Your task to perform on an android device: turn pop-ups on in chrome Image 0: 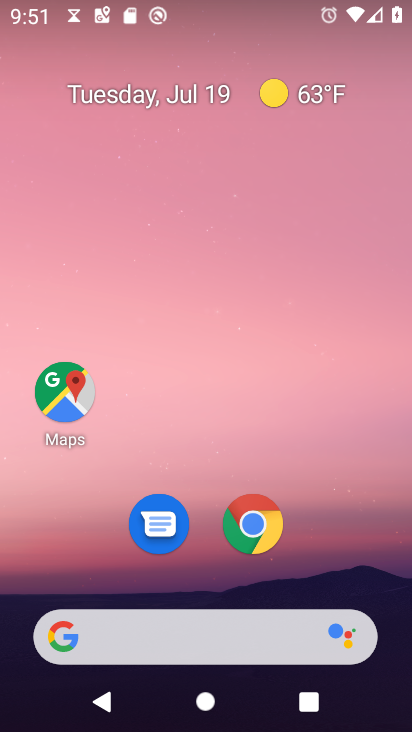
Step 0: click (253, 531)
Your task to perform on an android device: turn pop-ups on in chrome Image 1: 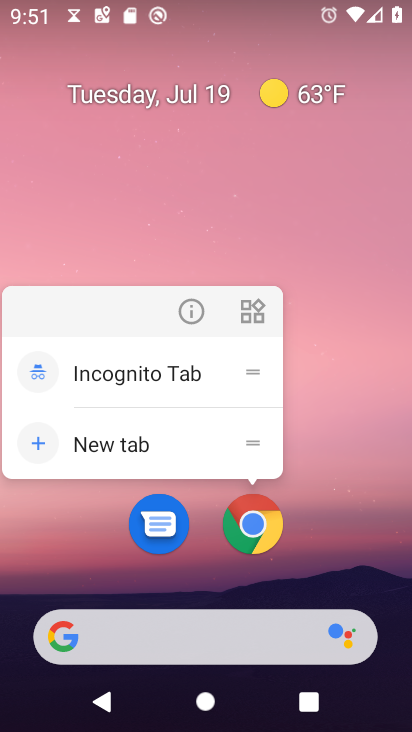
Step 1: click (255, 526)
Your task to perform on an android device: turn pop-ups on in chrome Image 2: 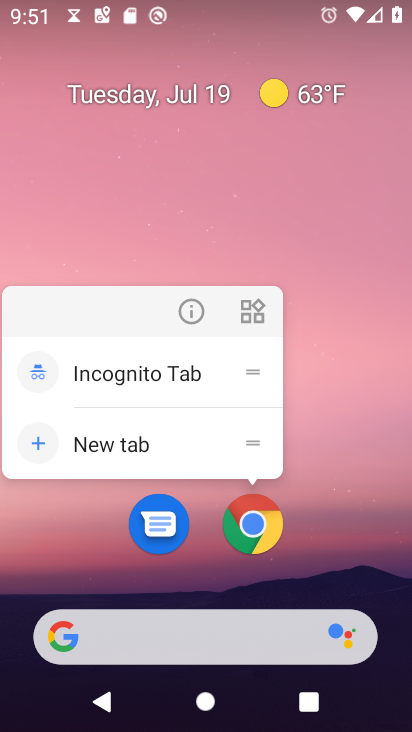
Step 2: click (244, 525)
Your task to perform on an android device: turn pop-ups on in chrome Image 3: 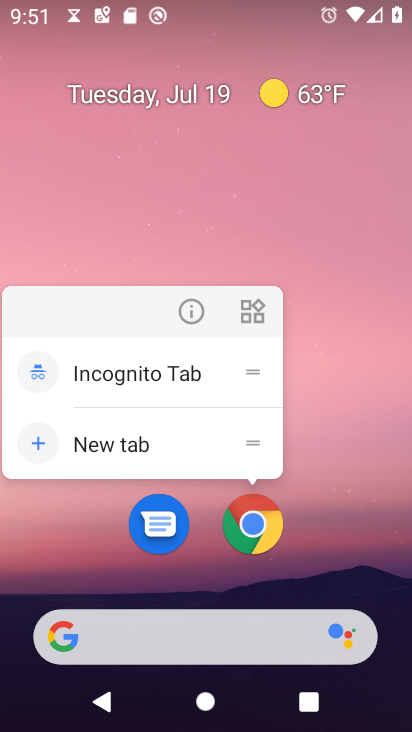
Step 3: click (244, 525)
Your task to perform on an android device: turn pop-ups on in chrome Image 4: 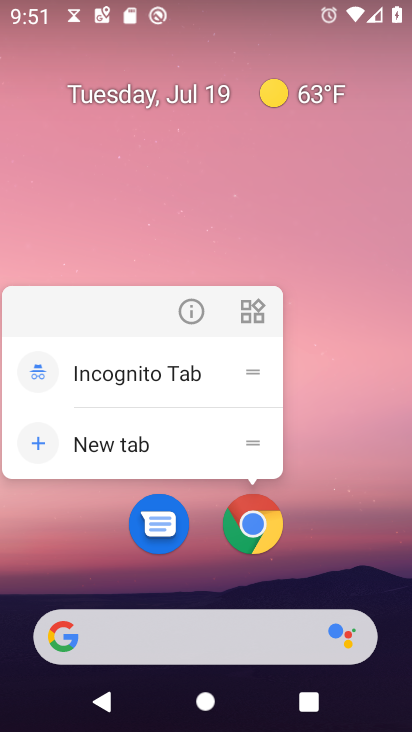
Step 4: click (260, 526)
Your task to perform on an android device: turn pop-ups on in chrome Image 5: 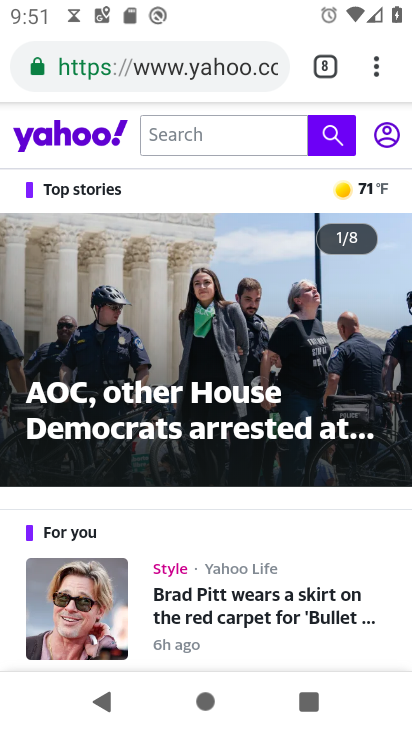
Step 5: drag from (371, 65) to (264, 534)
Your task to perform on an android device: turn pop-ups on in chrome Image 6: 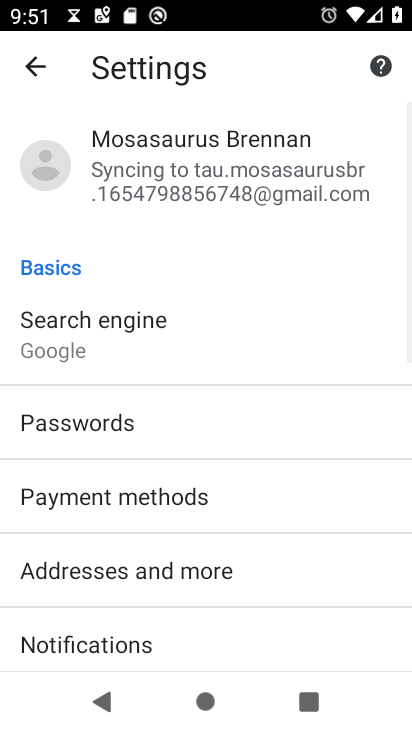
Step 6: drag from (197, 595) to (295, 130)
Your task to perform on an android device: turn pop-ups on in chrome Image 7: 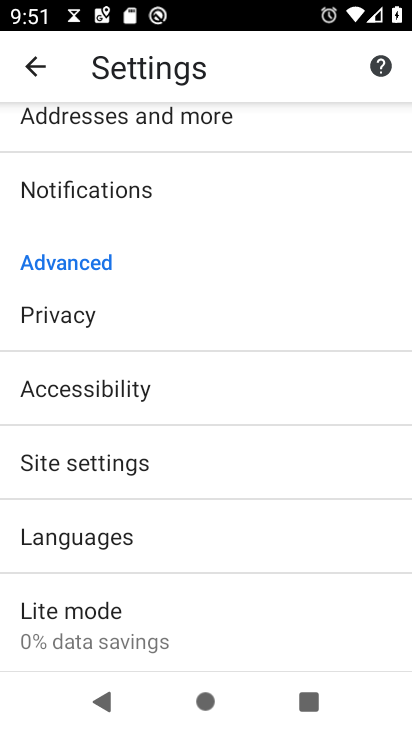
Step 7: click (93, 467)
Your task to perform on an android device: turn pop-ups on in chrome Image 8: 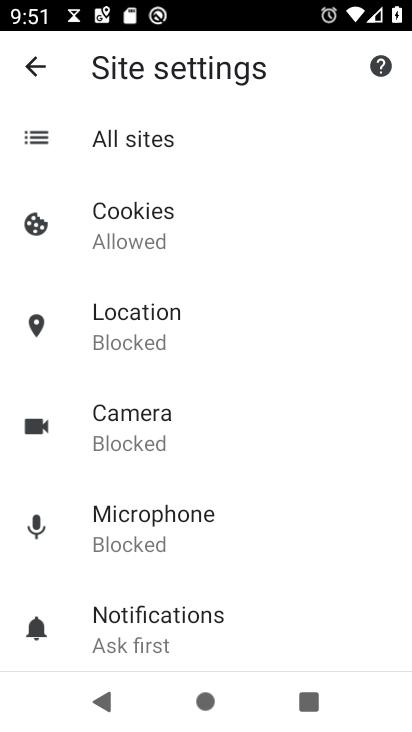
Step 8: drag from (236, 586) to (282, 131)
Your task to perform on an android device: turn pop-ups on in chrome Image 9: 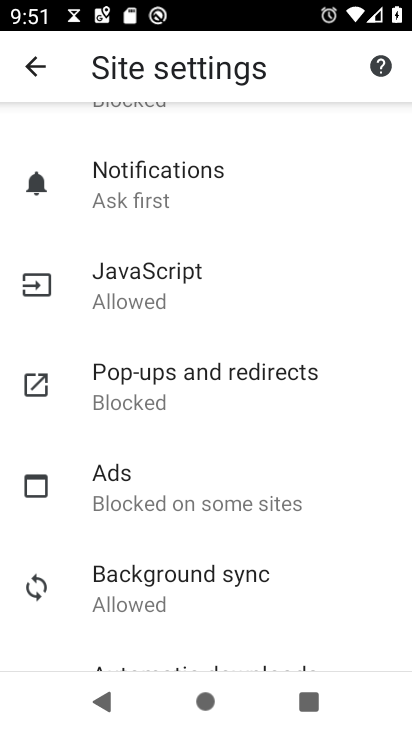
Step 9: click (174, 389)
Your task to perform on an android device: turn pop-ups on in chrome Image 10: 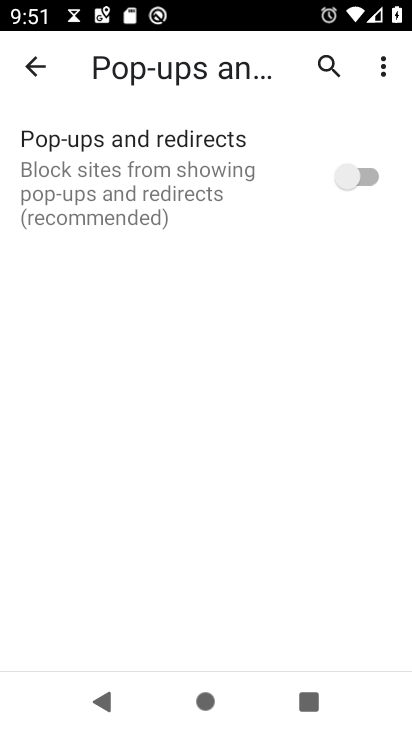
Step 10: click (366, 176)
Your task to perform on an android device: turn pop-ups on in chrome Image 11: 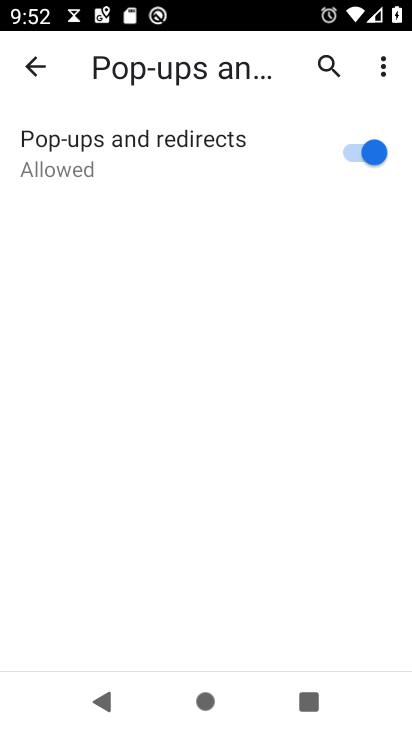
Step 11: task complete